Your task to perform on an android device: turn off airplane mode Image 0: 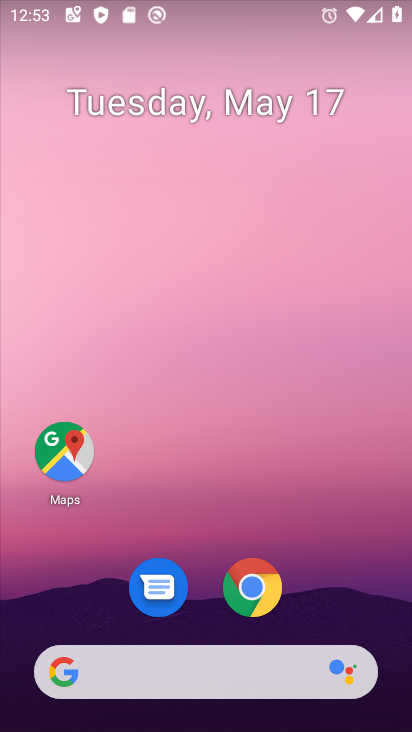
Step 0: drag from (293, 6) to (332, 475)
Your task to perform on an android device: turn off airplane mode Image 1: 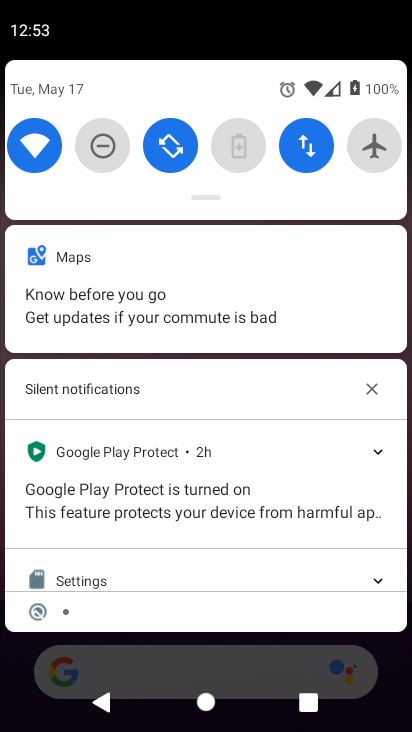
Step 1: task complete